Your task to perform on an android device: Open calendar and show me the first week of next month Image 0: 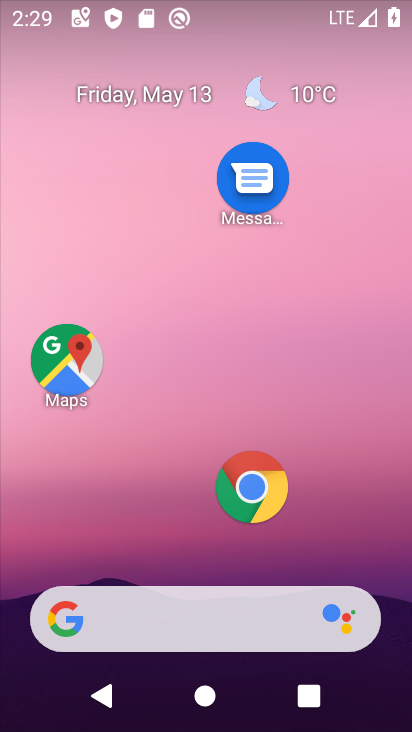
Step 0: drag from (166, 531) to (183, 128)
Your task to perform on an android device: Open calendar and show me the first week of next month Image 1: 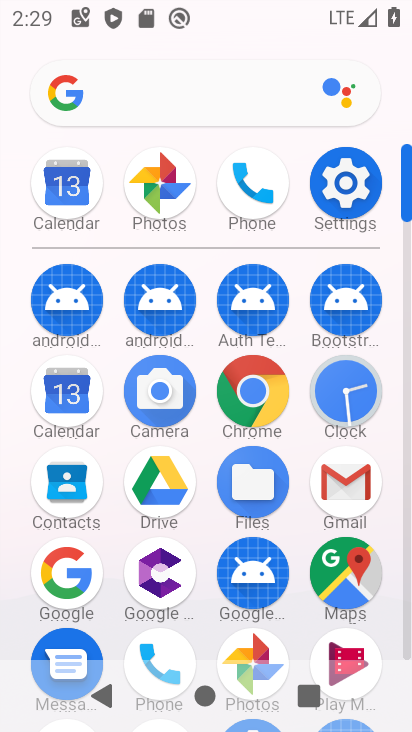
Step 1: click (67, 386)
Your task to perform on an android device: Open calendar and show me the first week of next month Image 2: 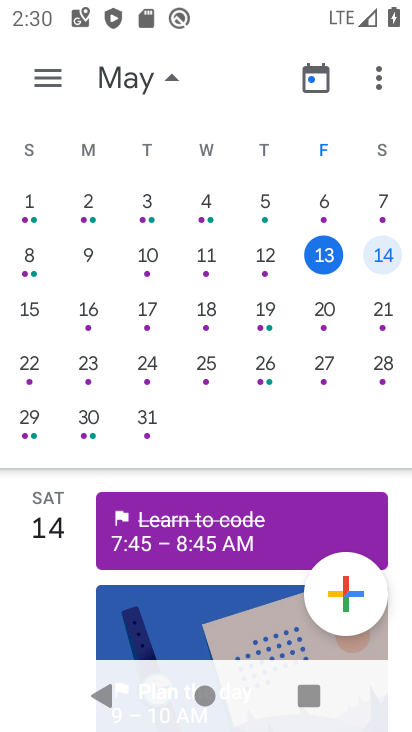
Step 2: drag from (384, 394) to (22, 383)
Your task to perform on an android device: Open calendar and show me the first week of next month Image 3: 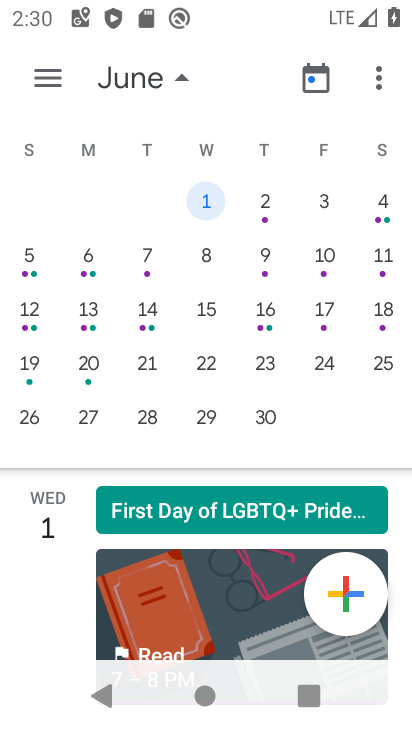
Step 3: click (207, 194)
Your task to perform on an android device: Open calendar and show me the first week of next month Image 4: 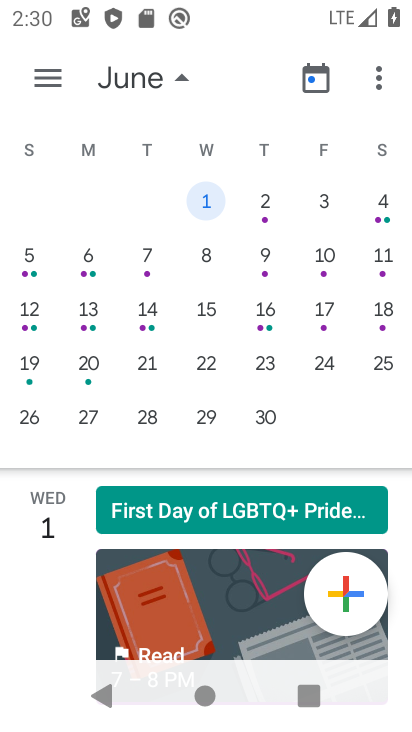
Step 4: click (263, 208)
Your task to perform on an android device: Open calendar and show me the first week of next month Image 5: 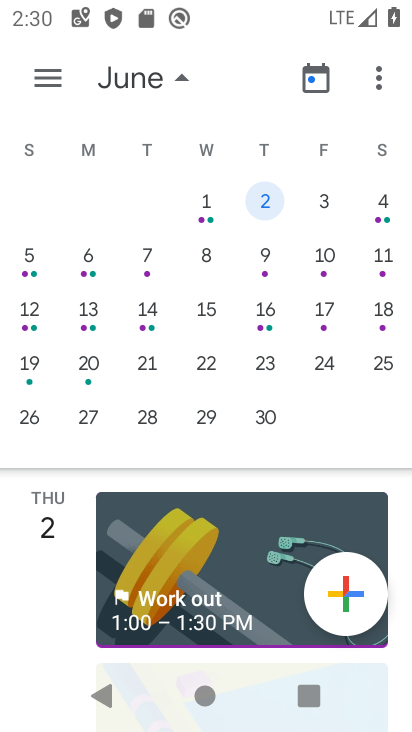
Step 5: click (327, 205)
Your task to perform on an android device: Open calendar and show me the first week of next month Image 6: 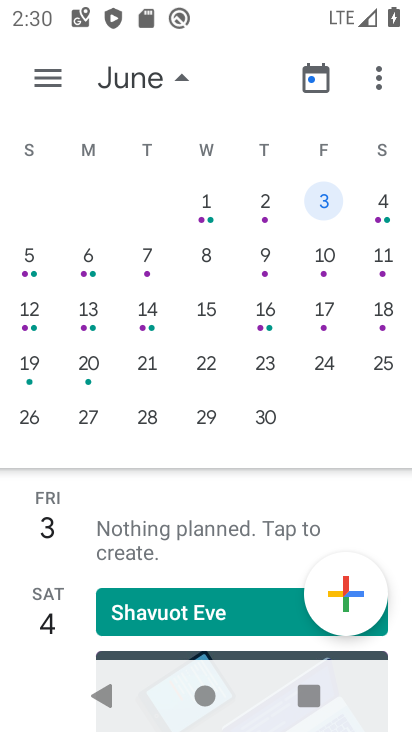
Step 6: click (382, 206)
Your task to perform on an android device: Open calendar and show me the first week of next month Image 7: 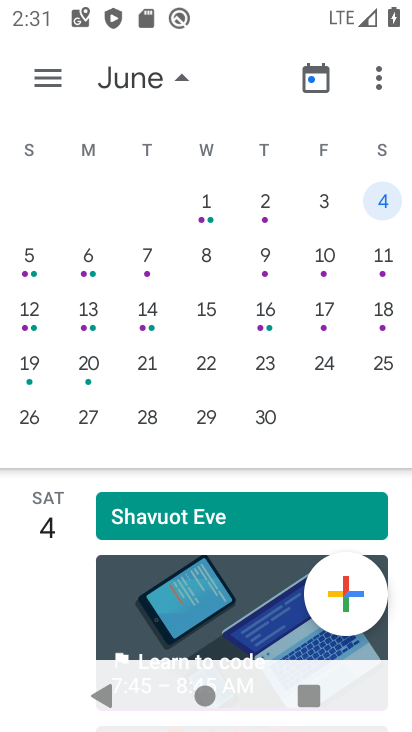
Step 7: task complete